Your task to perform on an android device: Go to Yahoo.com Image 0: 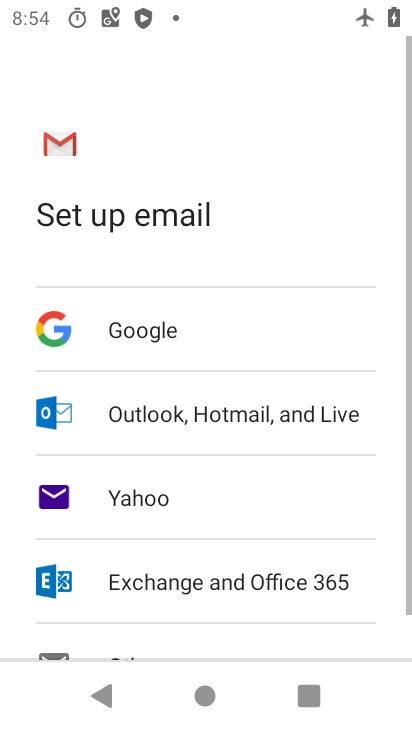
Step 0: press home button
Your task to perform on an android device: Go to Yahoo.com Image 1: 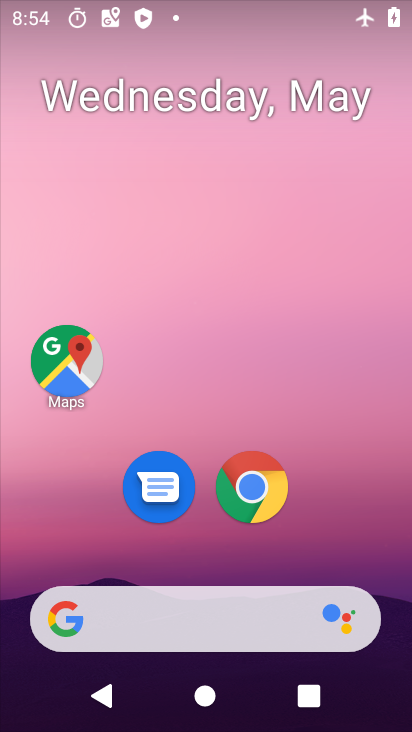
Step 1: click (234, 495)
Your task to perform on an android device: Go to Yahoo.com Image 2: 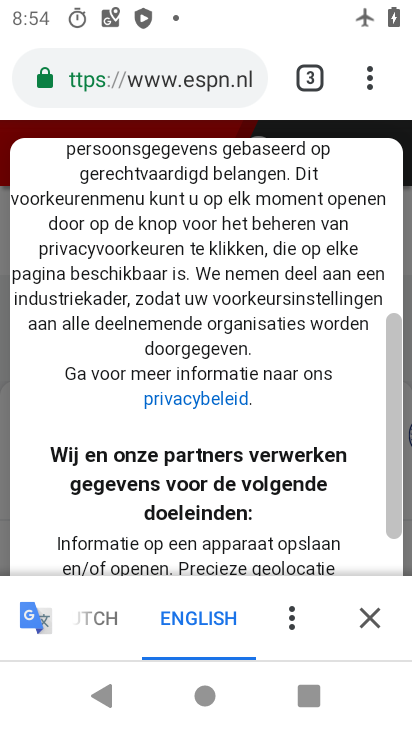
Step 2: click (316, 75)
Your task to perform on an android device: Go to Yahoo.com Image 3: 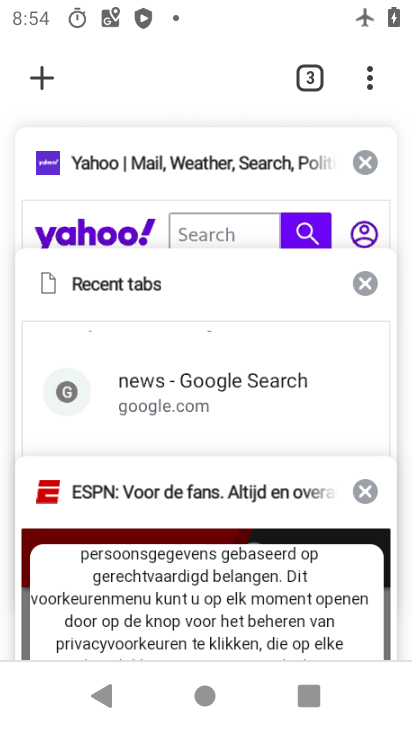
Step 3: click (234, 215)
Your task to perform on an android device: Go to Yahoo.com Image 4: 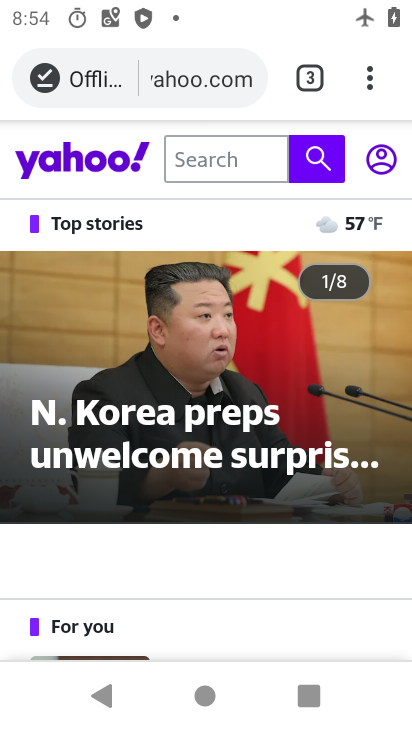
Step 4: task complete